Your task to perform on an android device: Do I have any events tomorrow? Image 0: 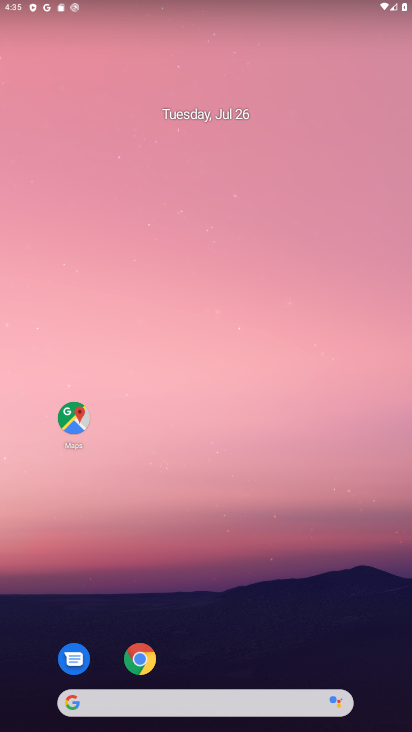
Step 0: drag from (204, 671) to (184, 53)
Your task to perform on an android device: Do I have any events tomorrow? Image 1: 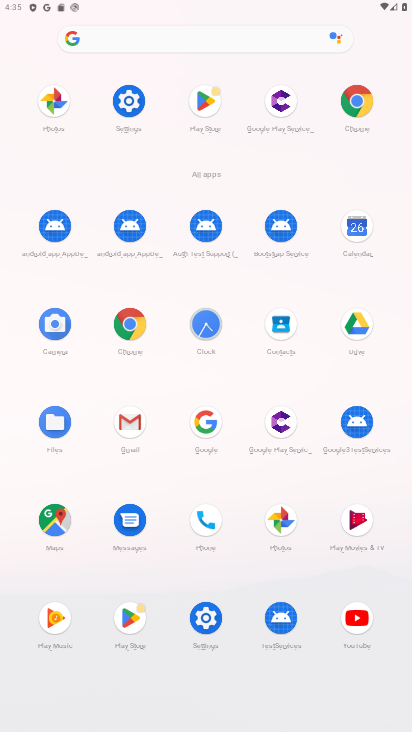
Step 1: click (357, 223)
Your task to perform on an android device: Do I have any events tomorrow? Image 2: 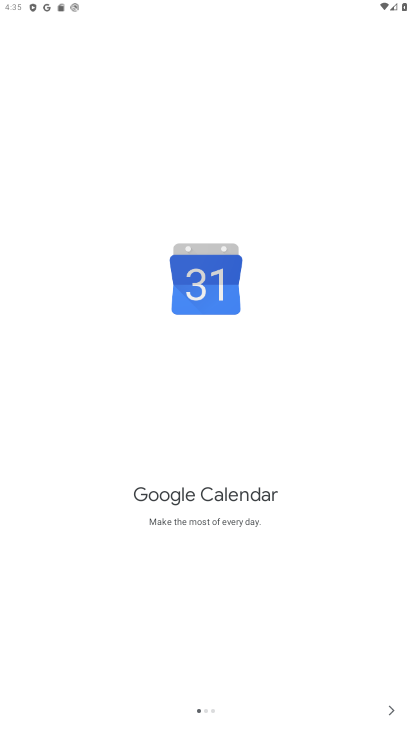
Step 2: click (395, 711)
Your task to perform on an android device: Do I have any events tomorrow? Image 3: 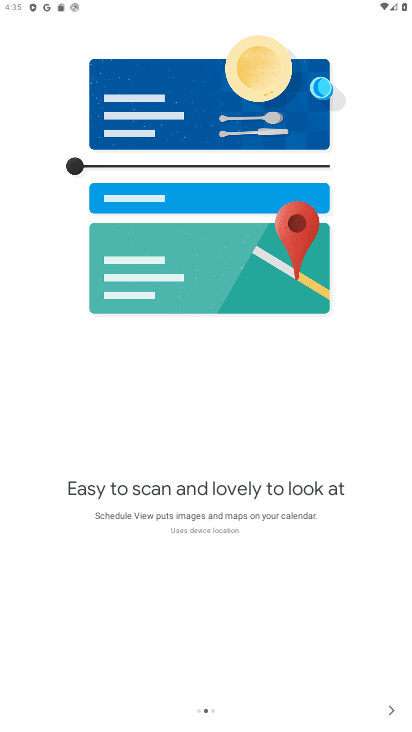
Step 3: click (390, 711)
Your task to perform on an android device: Do I have any events tomorrow? Image 4: 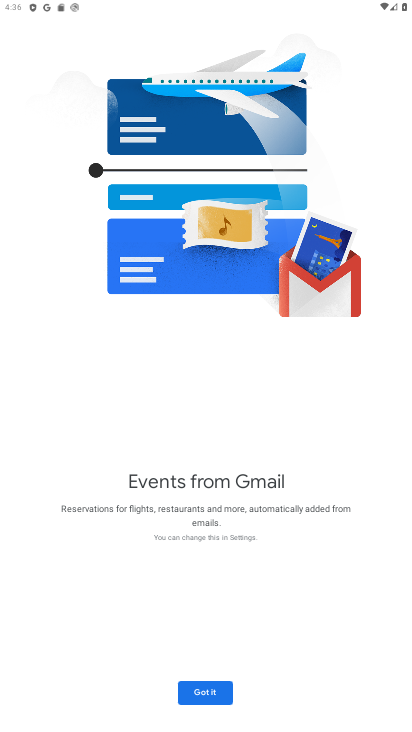
Step 4: click (212, 687)
Your task to perform on an android device: Do I have any events tomorrow? Image 5: 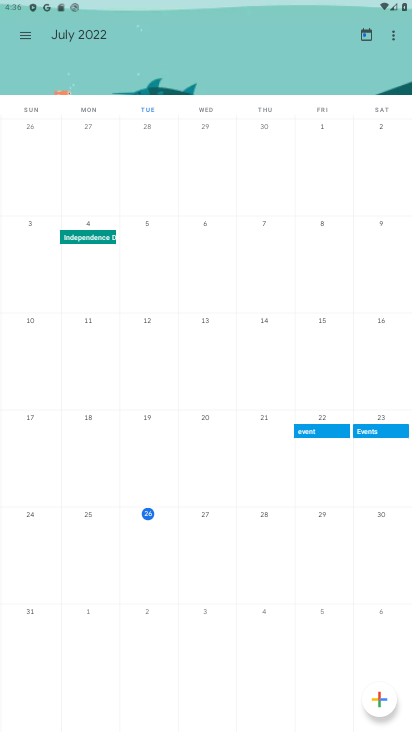
Step 5: click (24, 38)
Your task to perform on an android device: Do I have any events tomorrow? Image 6: 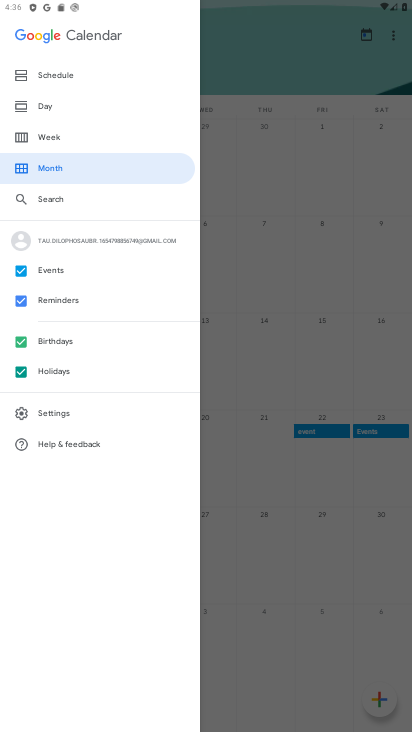
Step 6: click (40, 105)
Your task to perform on an android device: Do I have any events tomorrow? Image 7: 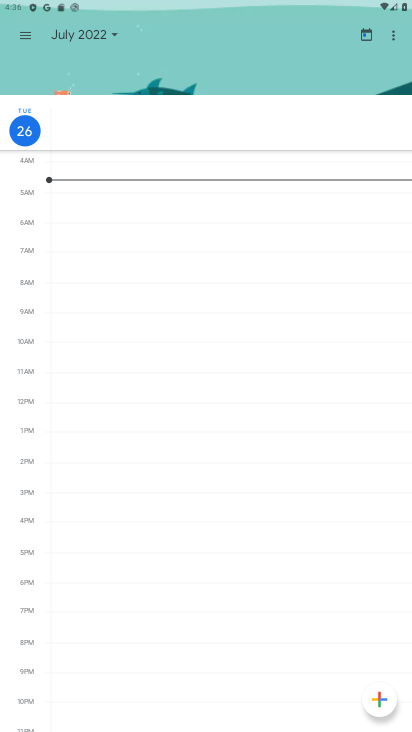
Step 7: click (116, 35)
Your task to perform on an android device: Do I have any events tomorrow? Image 8: 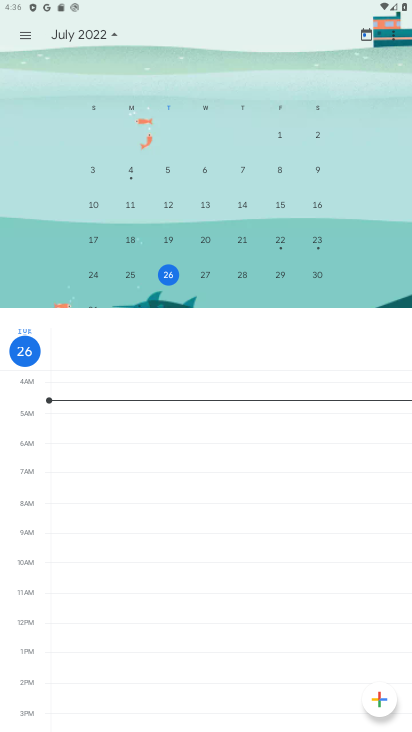
Step 8: click (204, 273)
Your task to perform on an android device: Do I have any events tomorrow? Image 9: 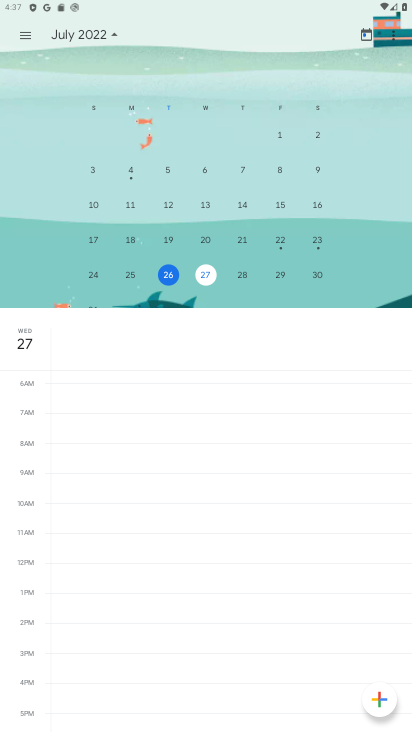
Step 9: click (114, 33)
Your task to perform on an android device: Do I have any events tomorrow? Image 10: 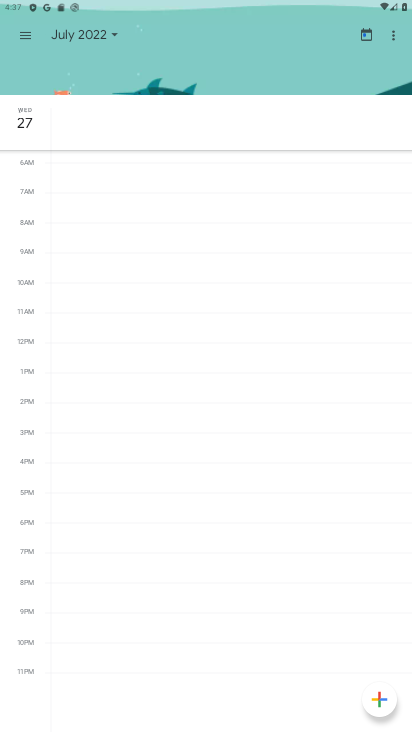
Step 10: task complete